Your task to perform on an android device: Search for Mexican restaurants on Maps Image 0: 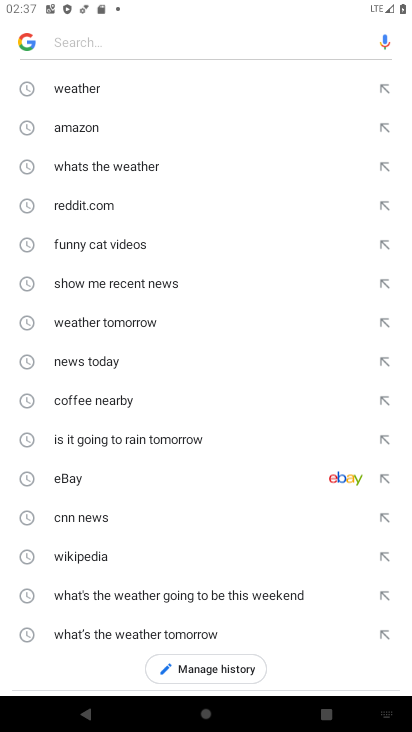
Step 0: press back button
Your task to perform on an android device: Search for Mexican restaurants on Maps Image 1: 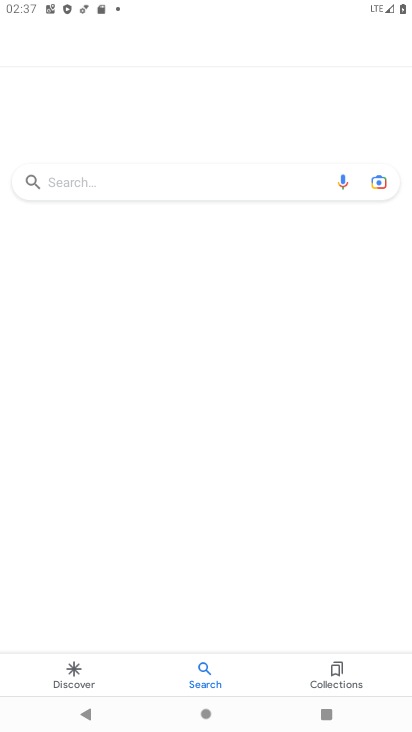
Step 1: press back button
Your task to perform on an android device: Search for Mexican restaurants on Maps Image 2: 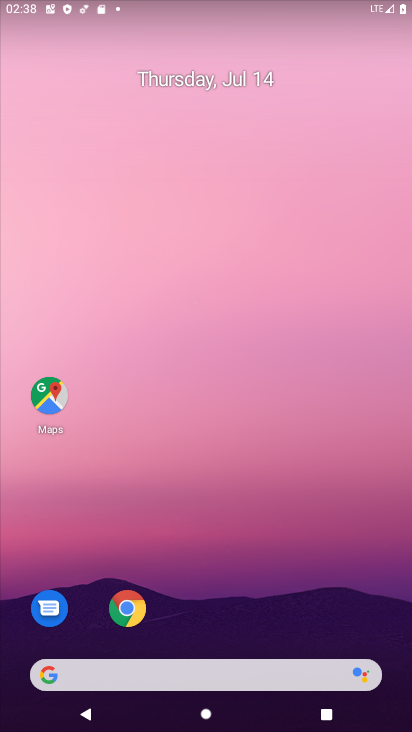
Step 2: click (26, 401)
Your task to perform on an android device: Search for Mexican restaurants on Maps Image 3: 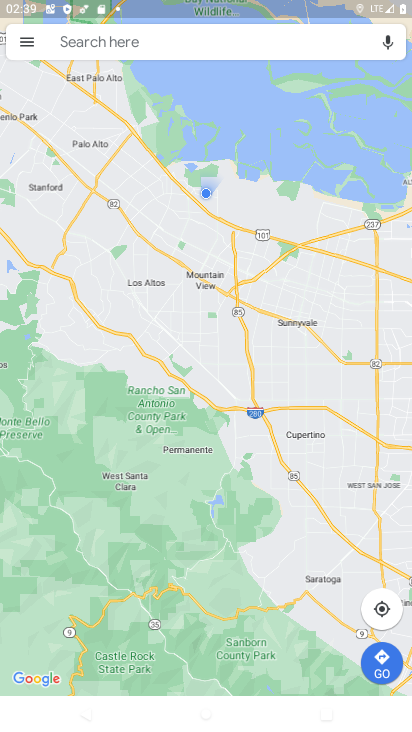
Step 3: click (201, 41)
Your task to perform on an android device: Search for Mexican restaurants on Maps Image 4: 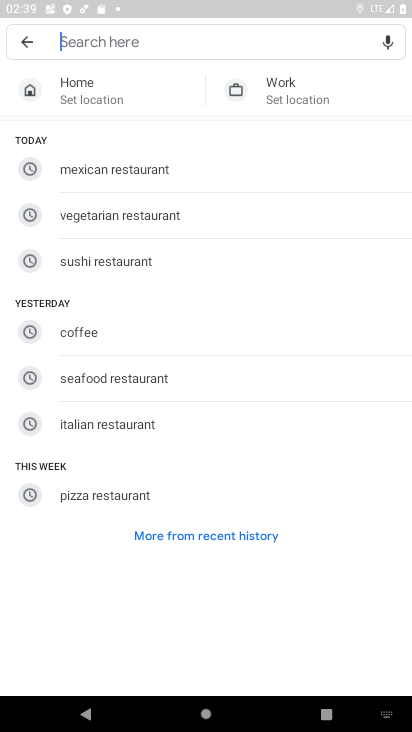
Step 4: click (156, 172)
Your task to perform on an android device: Search for Mexican restaurants on Maps Image 5: 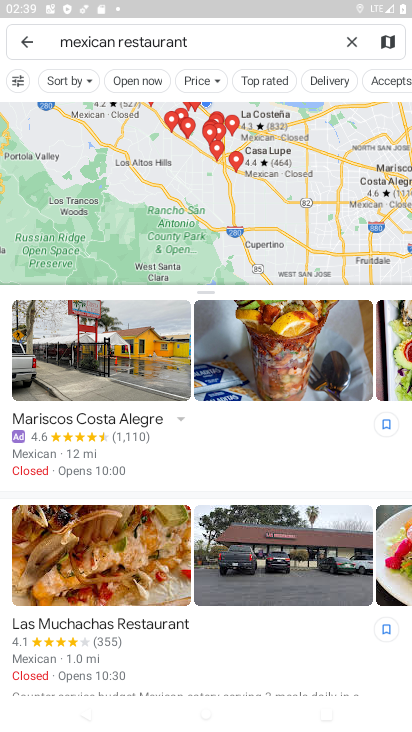
Step 5: task complete